Your task to perform on an android device: turn on the 12-hour format for clock Image 0: 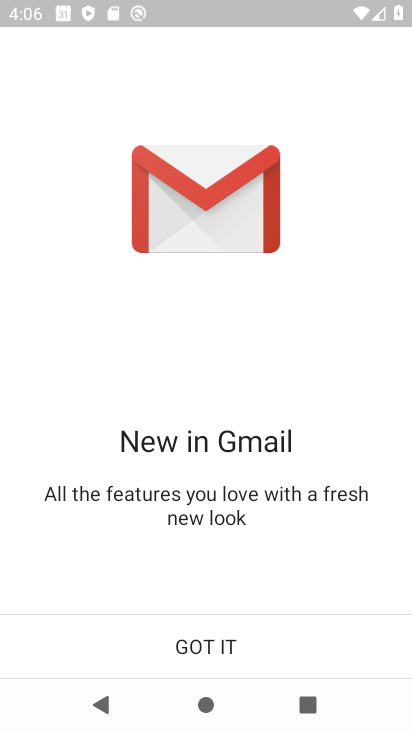
Step 0: click (204, 636)
Your task to perform on an android device: turn on the 12-hour format for clock Image 1: 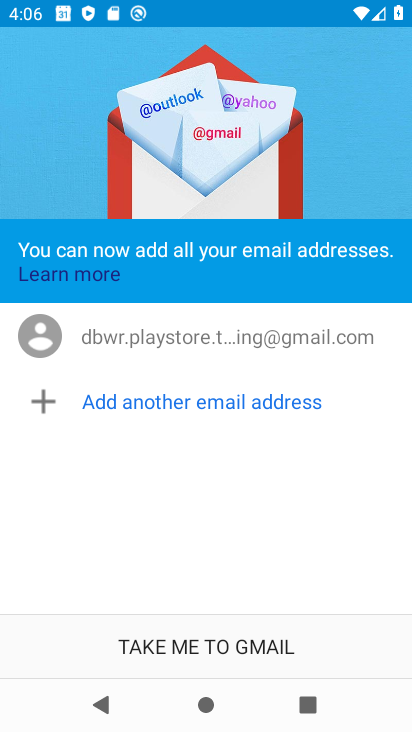
Step 1: click (189, 651)
Your task to perform on an android device: turn on the 12-hour format for clock Image 2: 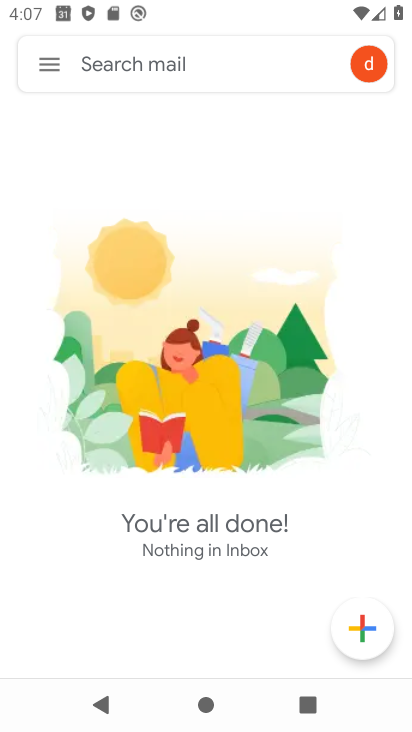
Step 2: press home button
Your task to perform on an android device: turn on the 12-hour format for clock Image 3: 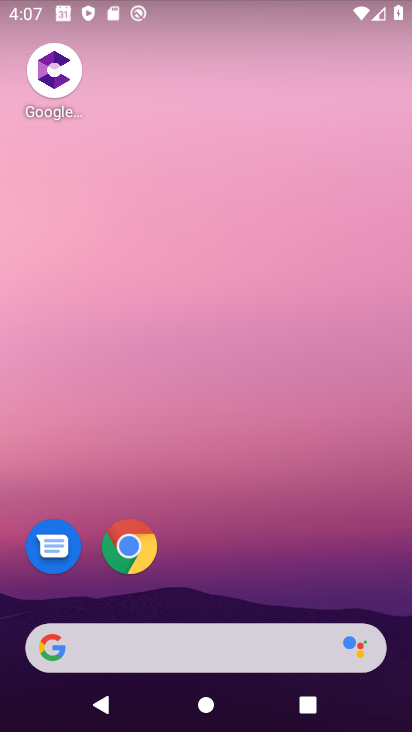
Step 3: drag from (215, 589) to (169, 162)
Your task to perform on an android device: turn on the 12-hour format for clock Image 4: 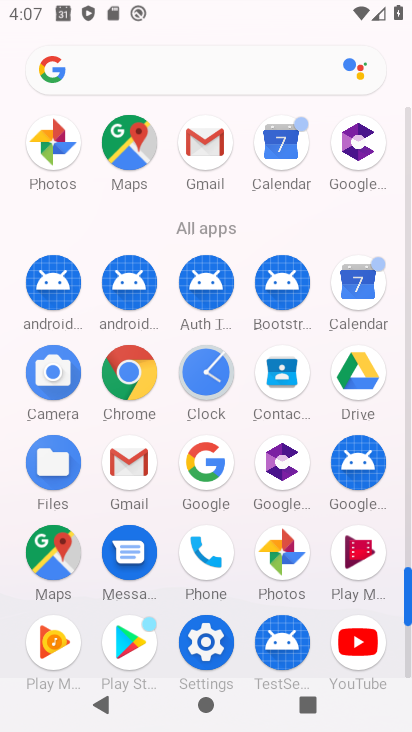
Step 4: click (197, 408)
Your task to perform on an android device: turn on the 12-hour format for clock Image 5: 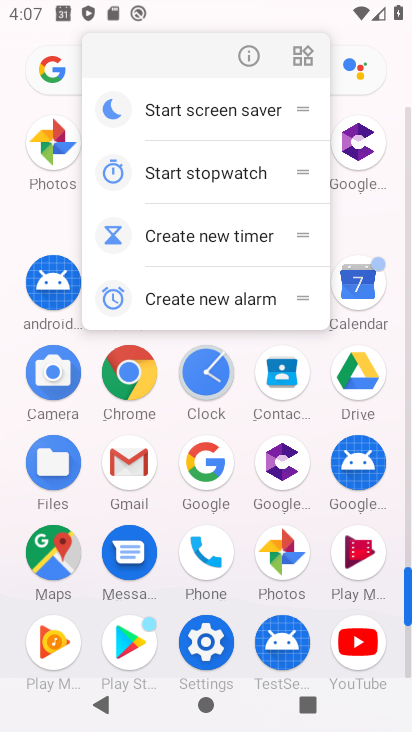
Step 5: click (210, 395)
Your task to perform on an android device: turn on the 12-hour format for clock Image 6: 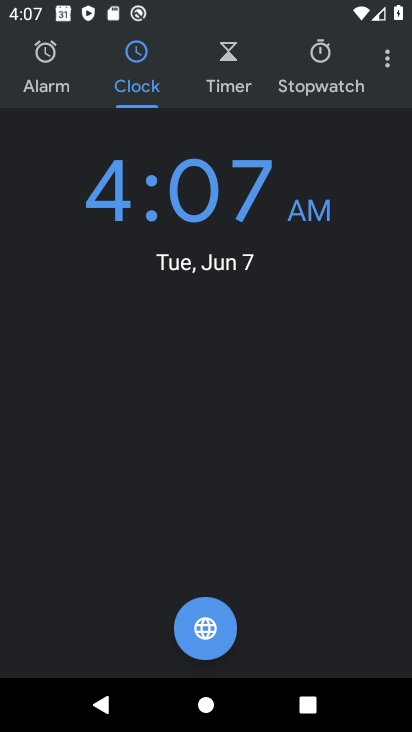
Step 6: click (381, 63)
Your task to perform on an android device: turn on the 12-hour format for clock Image 7: 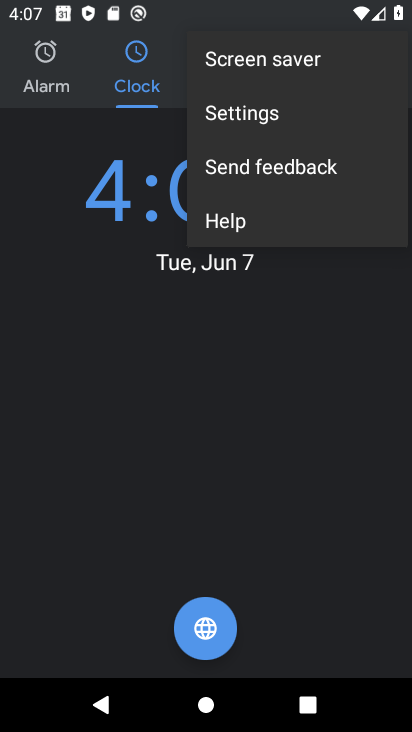
Step 7: click (284, 131)
Your task to perform on an android device: turn on the 12-hour format for clock Image 8: 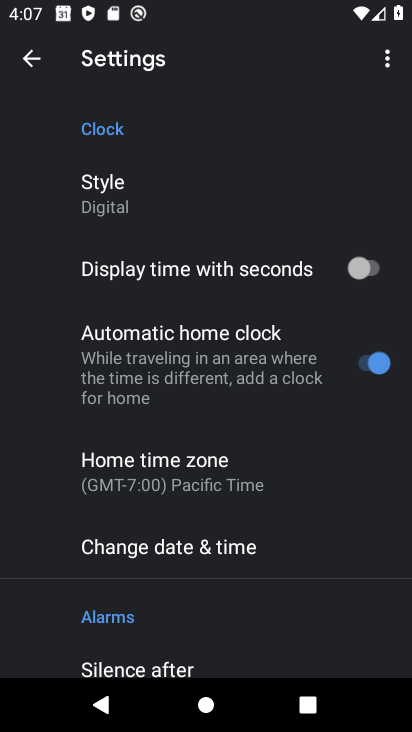
Step 8: drag from (220, 594) to (194, 193)
Your task to perform on an android device: turn on the 12-hour format for clock Image 9: 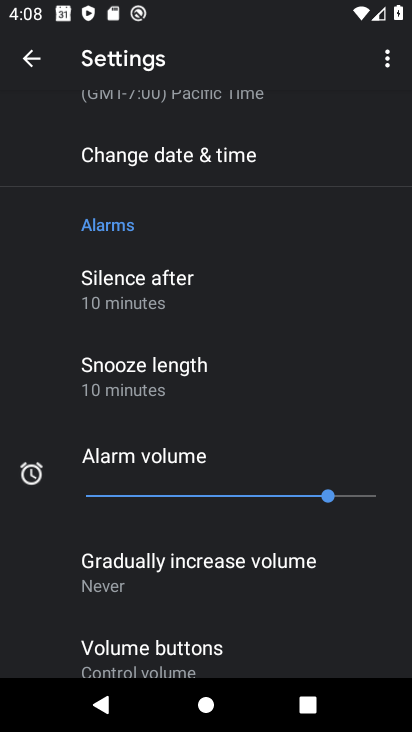
Step 9: drag from (195, 570) to (65, 245)
Your task to perform on an android device: turn on the 12-hour format for clock Image 10: 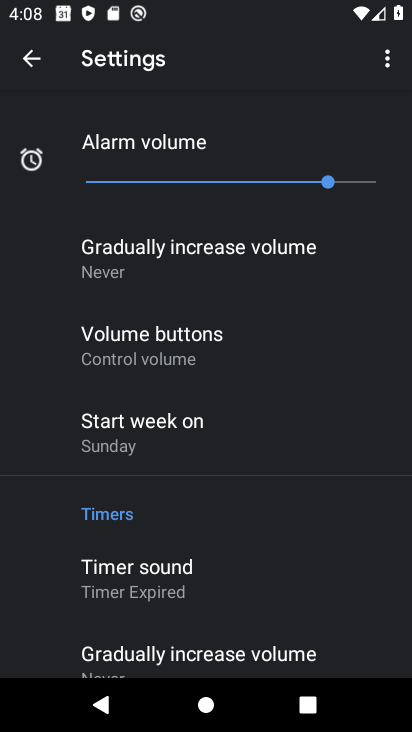
Step 10: drag from (166, 230) to (236, 728)
Your task to perform on an android device: turn on the 12-hour format for clock Image 11: 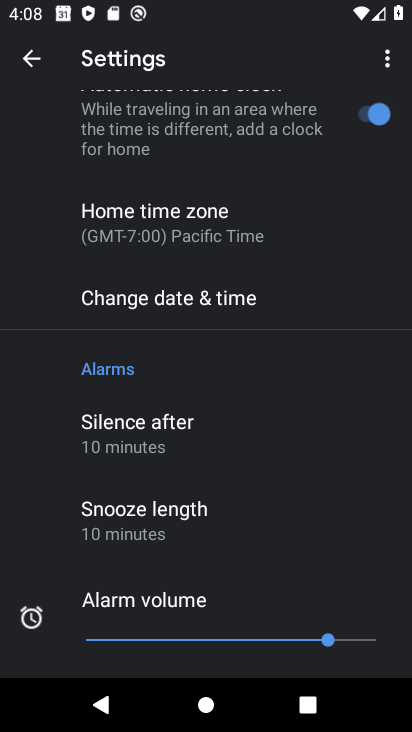
Step 11: click (175, 306)
Your task to perform on an android device: turn on the 12-hour format for clock Image 12: 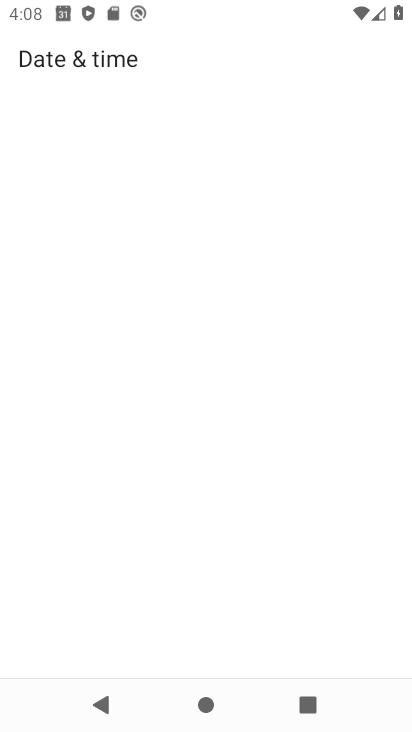
Step 12: drag from (247, 576) to (50, 235)
Your task to perform on an android device: turn on the 12-hour format for clock Image 13: 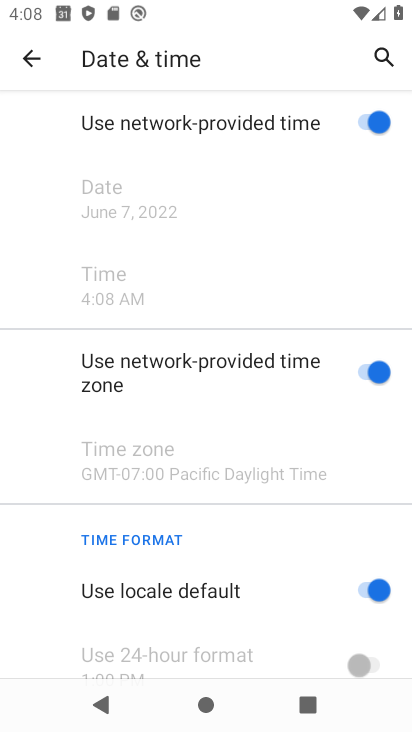
Step 13: drag from (261, 632) to (116, 199)
Your task to perform on an android device: turn on the 12-hour format for clock Image 14: 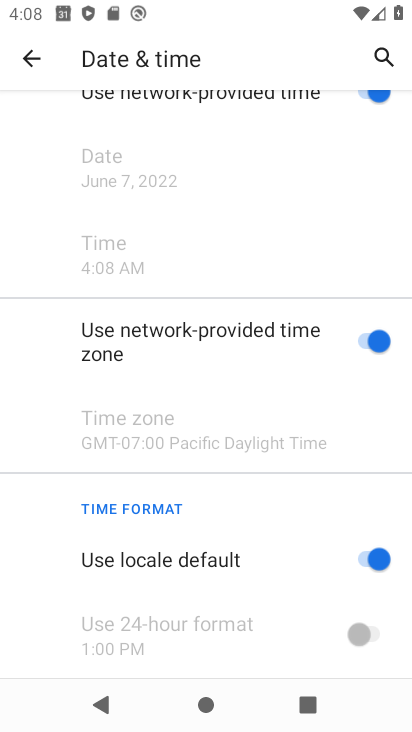
Step 14: drag from (213, 569) to (112, 270)
Your task to perform on an android device: turn on the 12-hour format for clock Image 15: 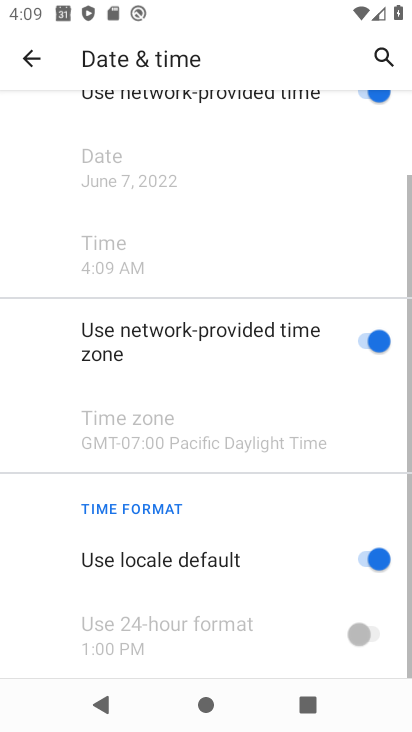
Step 15: drag from (190, 600) to (183, 266)
Your task to perform on an android device: turn on the 12-hour format for clock Image 16: 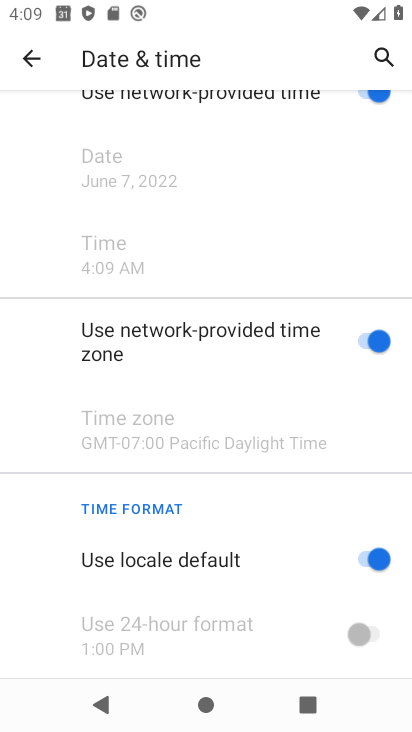
Step 16: click (352, 568)
Your task to perform on an android device: turn on the 12-hour format for clock Image 17: 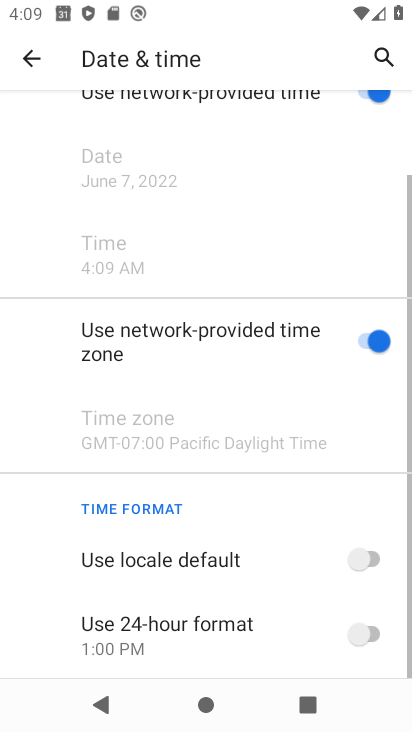
Step 17: click (373, 639)
Your task to perform on an android device: turn on the 12-hour format for clock Image 18: 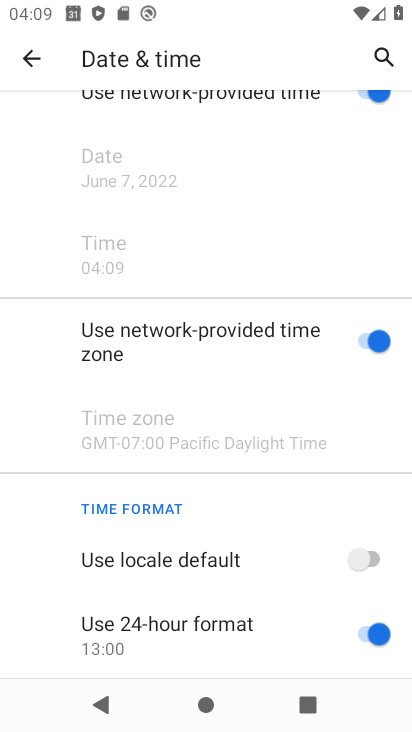
Step 18: click (363, 632)
Your task to perform on an android device: turn on the 12-hour format for clock Image 19: 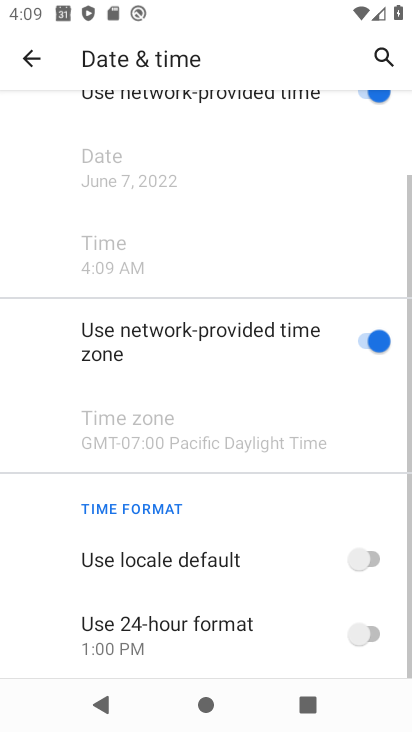
Step 19: click (374, 570)
Your task to perform on an android device: turn on the 12-hour format for clock Image 20: 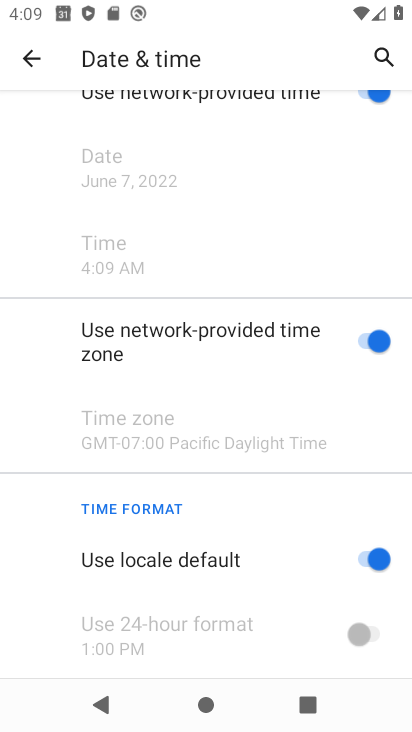
Step 20: task complete